Your task to perform on an android device: change notification settings in the gmail app Image 0: 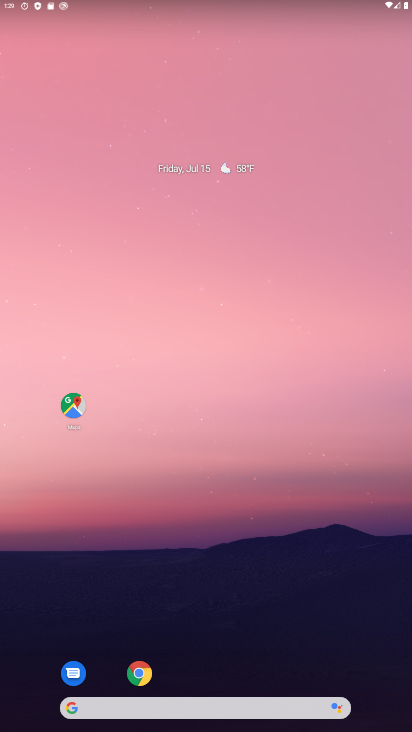
Step 0: drag from (240, 632) to (212, 197)
Your task to perform on an android device: change notification settings in the gmail app Image 1: 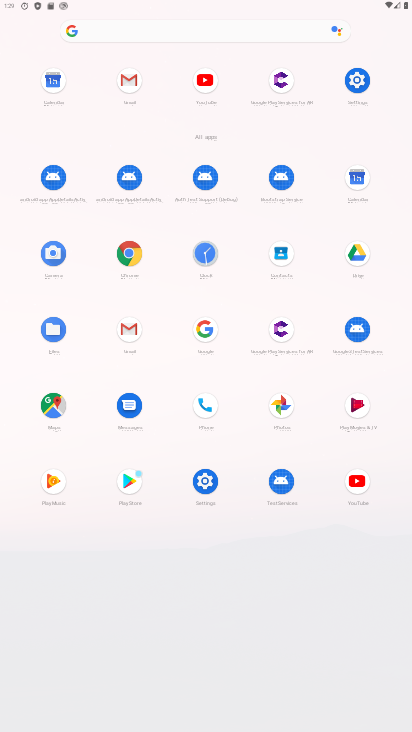
Step 1: click (127, 75)
Your task to perform on an android device: change notification settings in the gmail app Image 2: 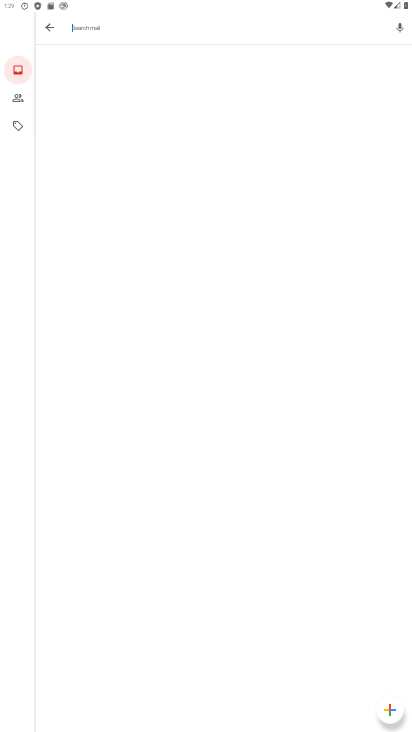
Step 2: press back button
Your task to perform on an android device: change notification settings in the gmail app Image 3: 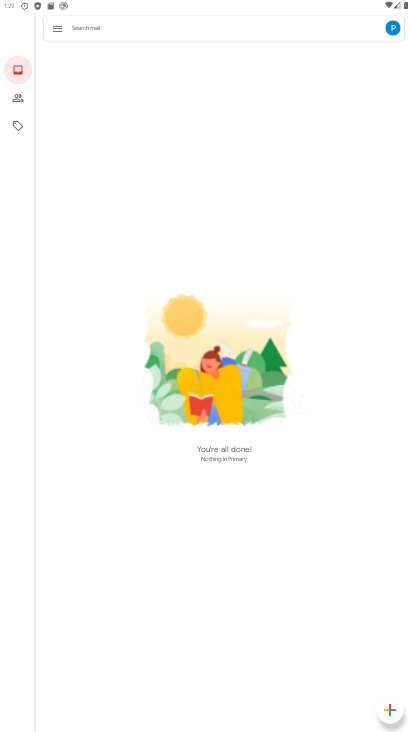
Step 3: click (60, 25)
Your task to perform on an android device: change notification settings in the gmail app Image 4: 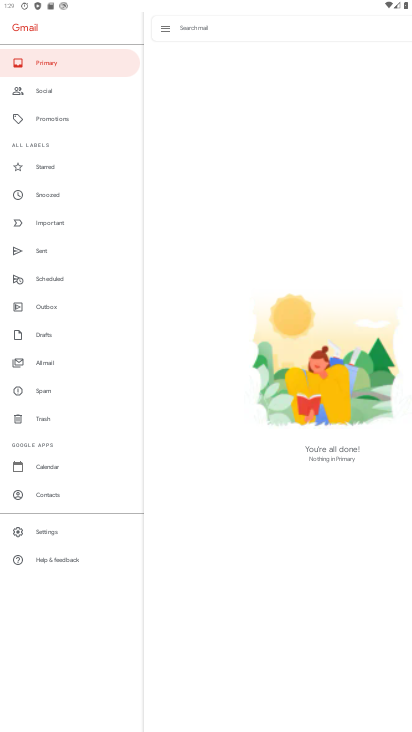
Step 4: click (65, 532)
Your task to perform on an android device: change notification settings in the gmail app Image 5: 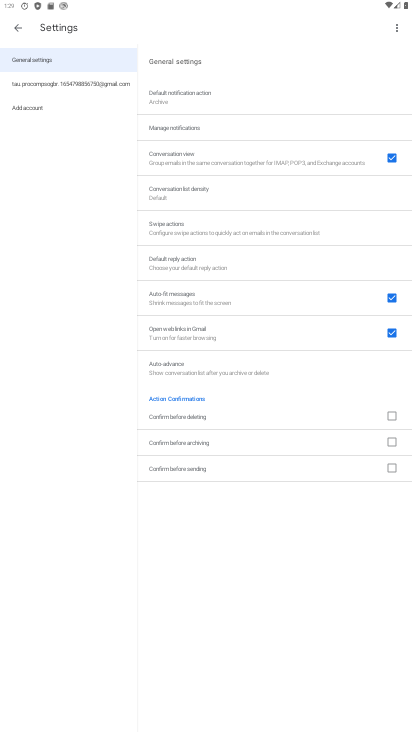
Step 5: click (72, 86)
Your task to perform on an android device: change notification settings in the gmail app Image 6: 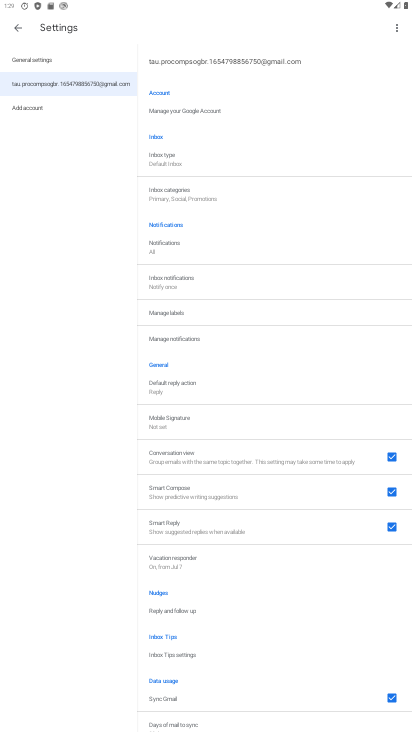
Step 6: drag from (240, 613) to (236, 223)
Your task to perform on an android device: change notification settings in the gmail app Image 7: 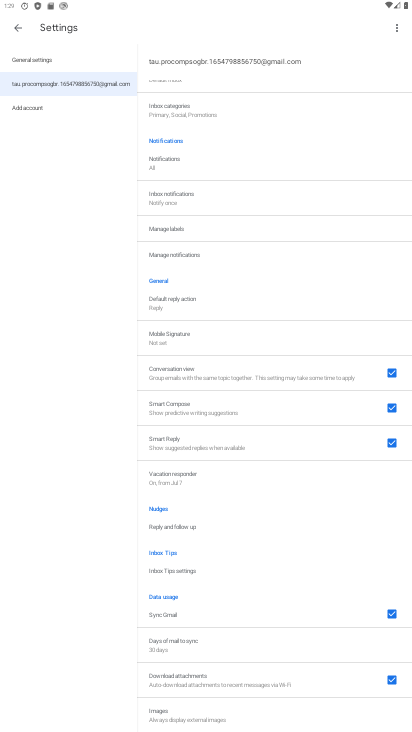
Step 7: click (173, 164)
Your task to perform on an android device: change notification settings in the gmail app Image 8: 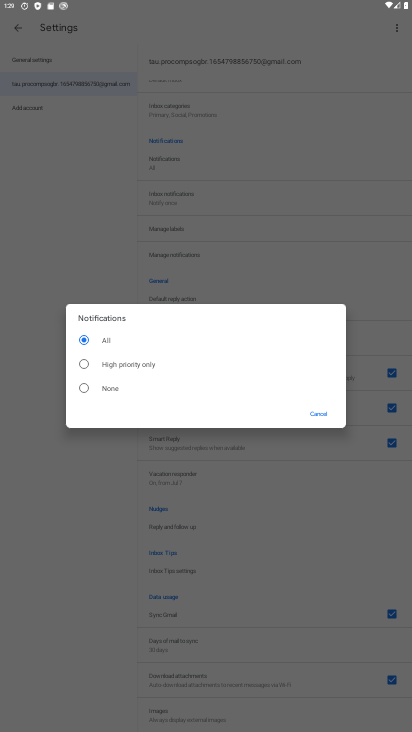
Step 8: click (84, 386)
Your task to perform on an android device: change notification settings in the gmail app Image 9: 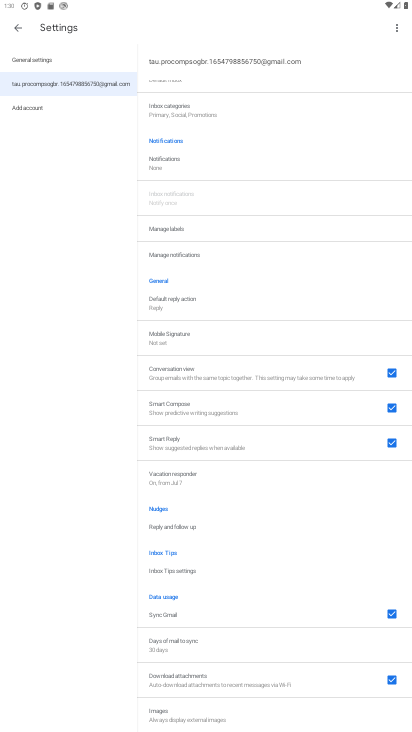
Step 9: task complete